Your task to perform on an android device: Empty the shopping cart on bestbuy. Search for "razer nari" on bestbuy, select the first entry, and add it to the cart. Image 0: 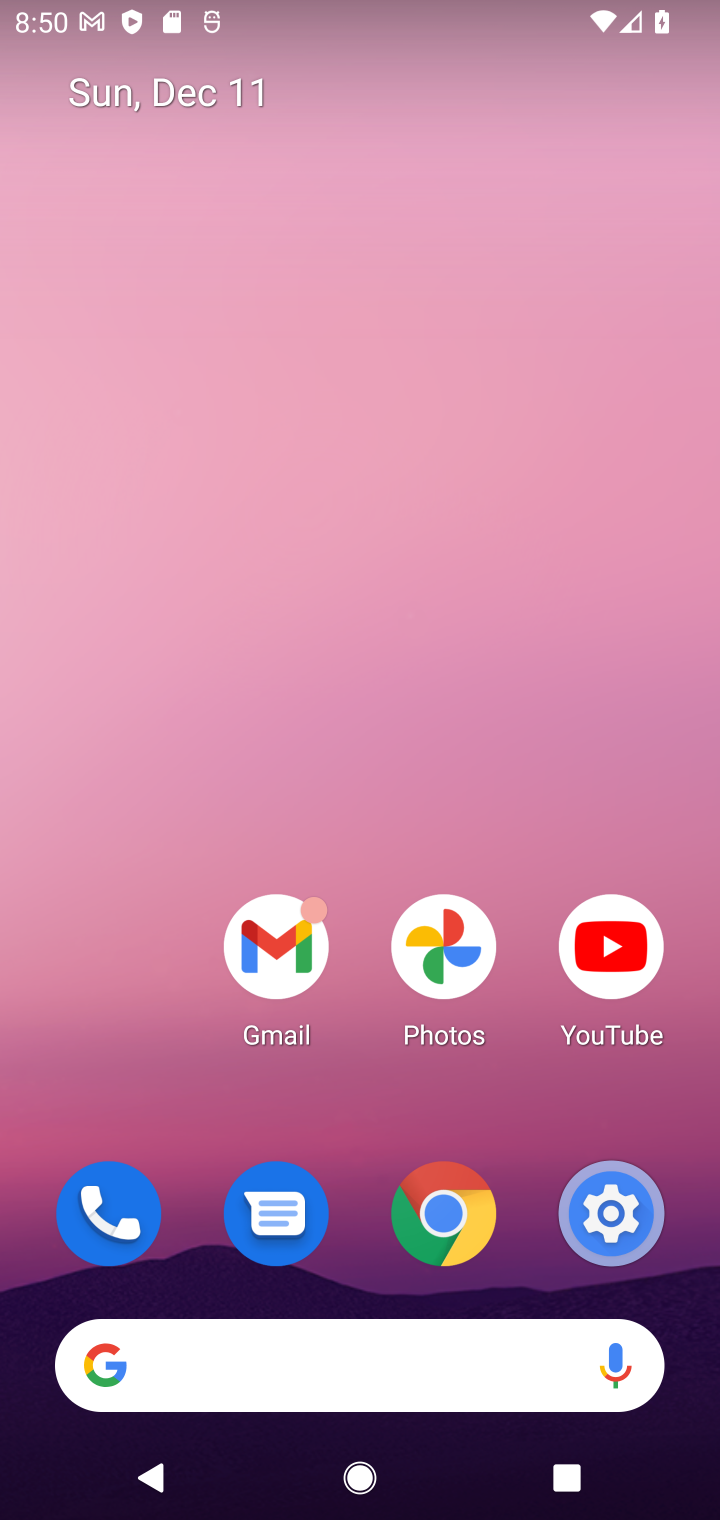
Step 0: click (355, 1404)
Your task to perform on an android device: Empty the shopping cart on bestbuy. Search for "razer nari" on bestbuy, select the first entry, and add it to the cart. Image 1: 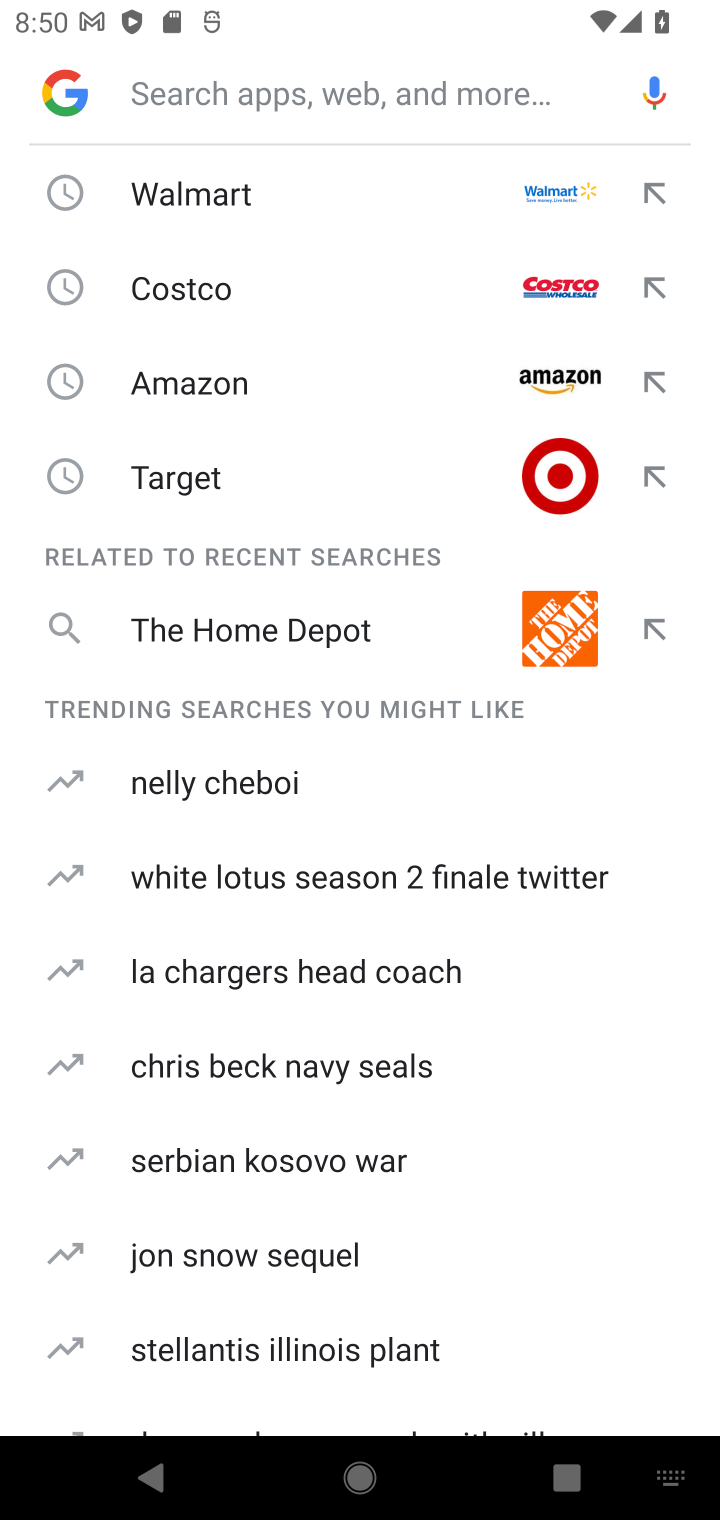
Step 1: type "bestbuy"
Your task to perform on an android device: Empty the shopping cart on bestbuy. Search for "razer nari" on bestbuy, select the first entry, and add it to the cart. Image 2: 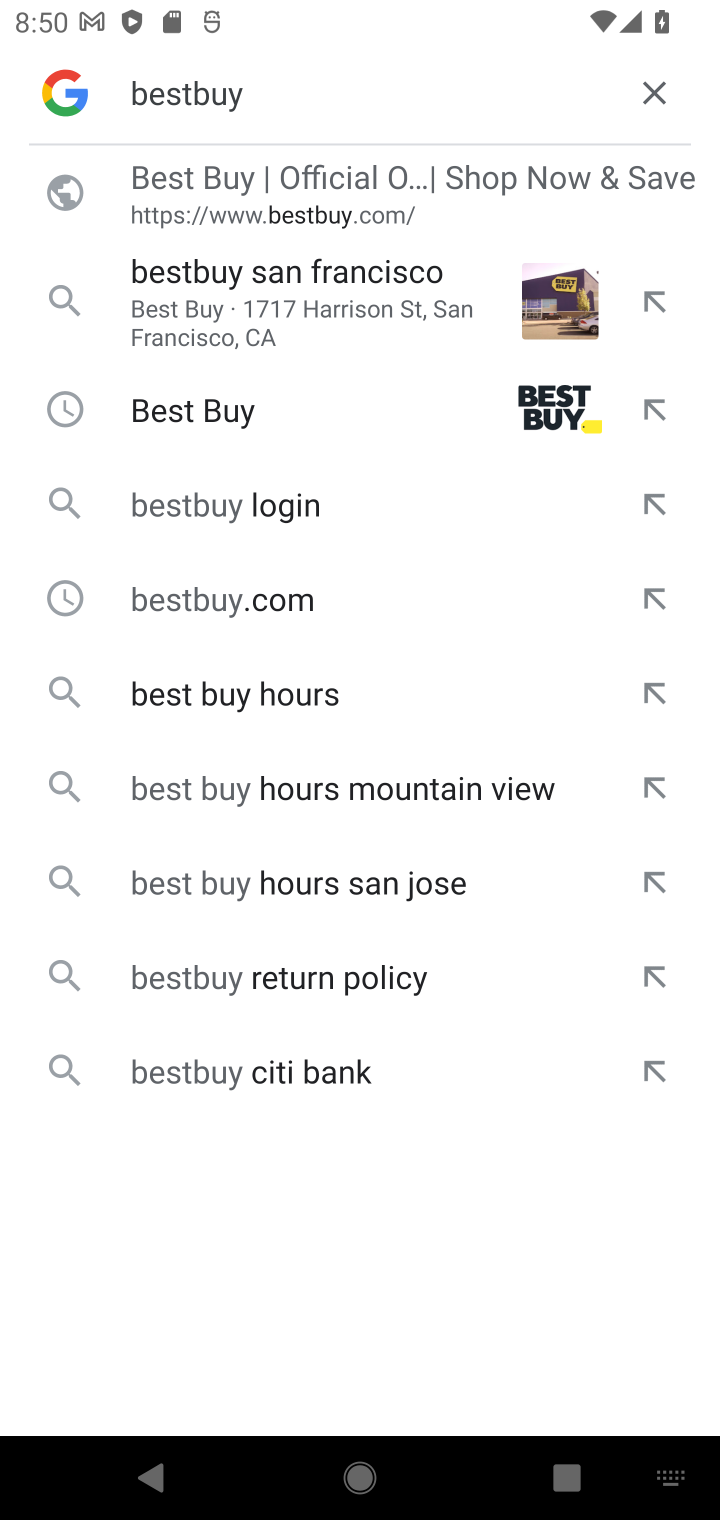
Step 2: click (352, 228)
Your task to perform on an android device: Empty the shopping cart on bestbuy. Search for "razer nari" on bestbuy, select the first entry, and add it to the cart. Image 3: 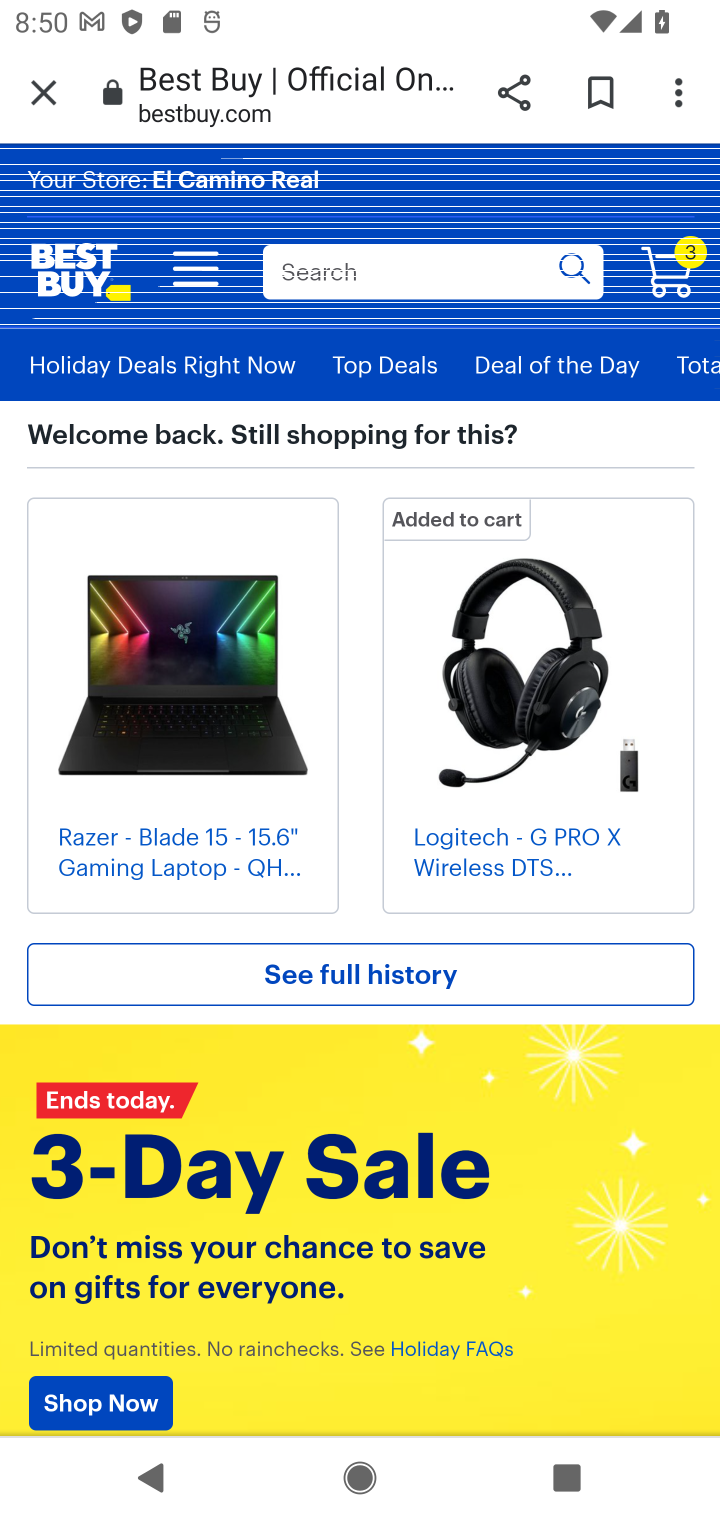
Step 3: click (338, 295)
Your task to perform on an android device: Empty the shopping cart on bestbuy. Search for "razer nari" on bestbuy, select the first entry, and add it to the cart. Image 4: 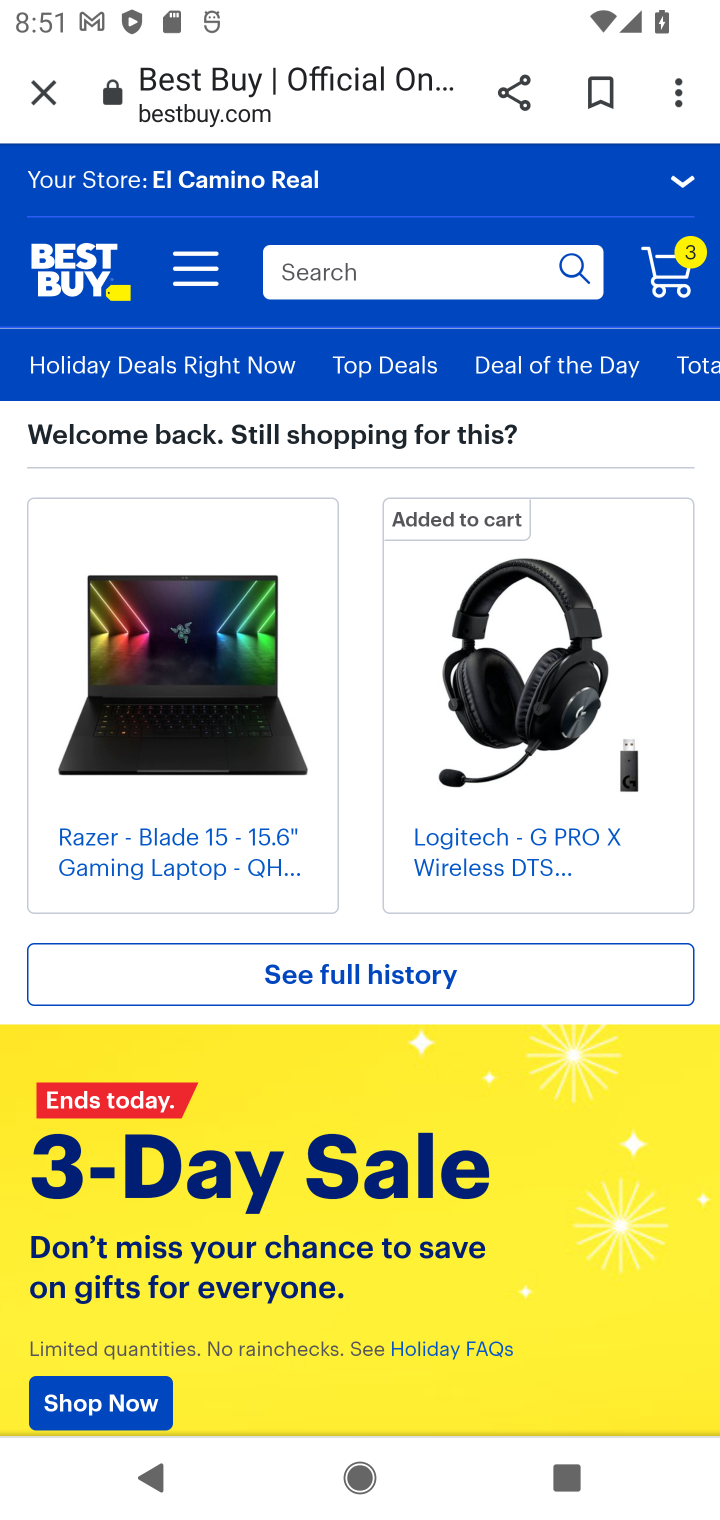
Step 4: type "razer nari"
Your task to perform on an android device: Empty the shopping cart on bestbuy. Search for "razer nari" on bestbuy, select the first entry, and add it to the cart. Image 5: 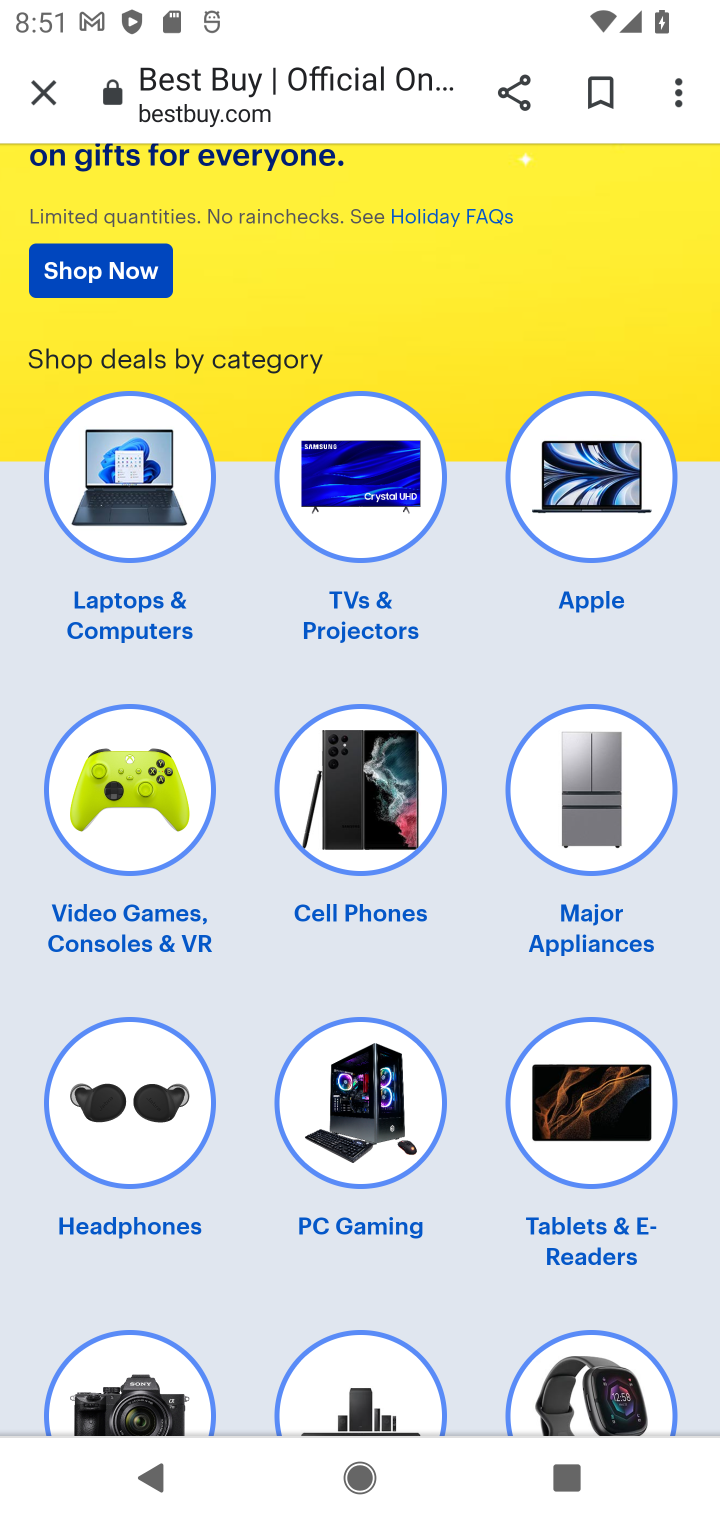
Step 5: drag from (370, 552) to (331, 1499)
Your task to perform on an android device: Empty the shopping cart on bestbuy. Search for "razer nari" on bestbuy, select the first entry, and add it to the cart. Image 6: 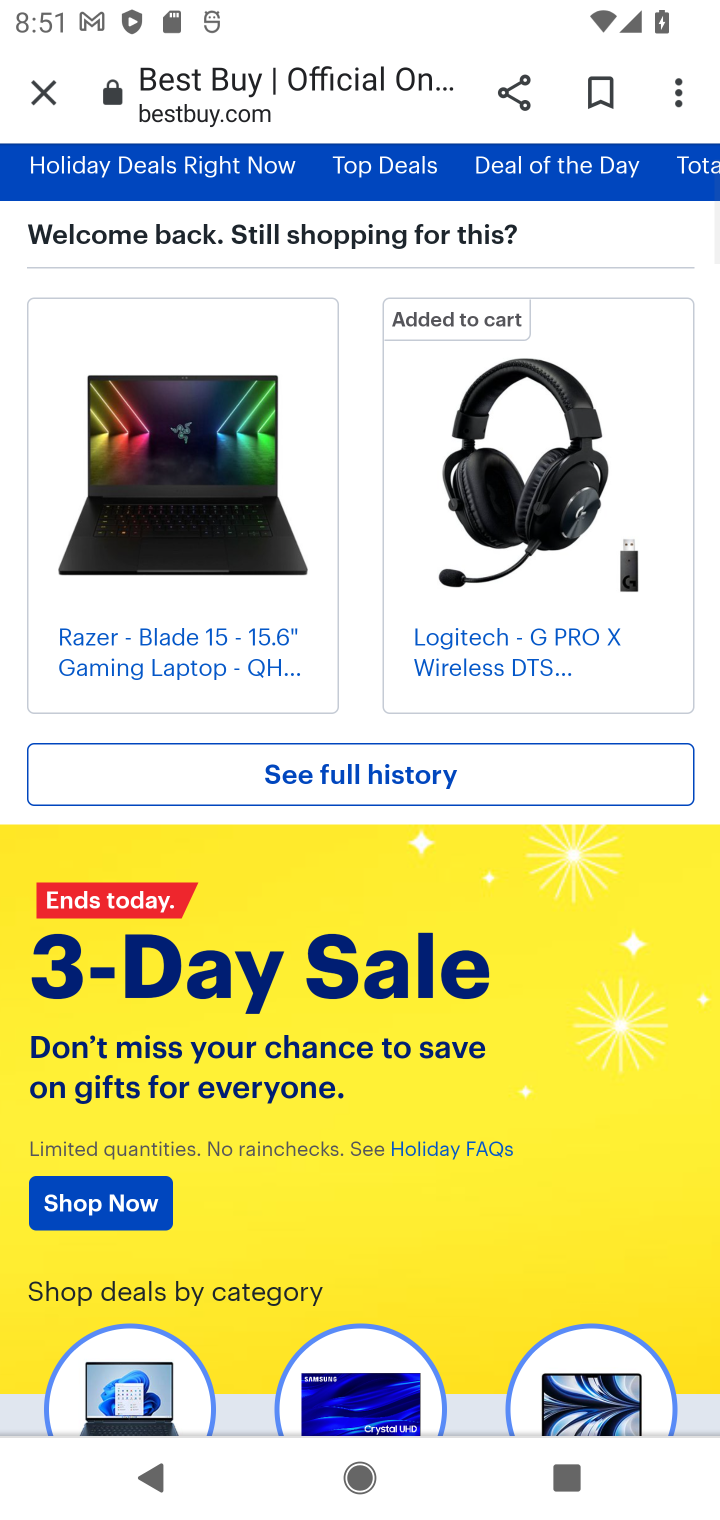
Step 6: drag from (272, 385) to (278, 986)
Your task to perform on an android device: Empty the shopping cart on bestbuy. Search for "razer nari" on bestbuy, select the first entry, and add it to the cart. Image 7: 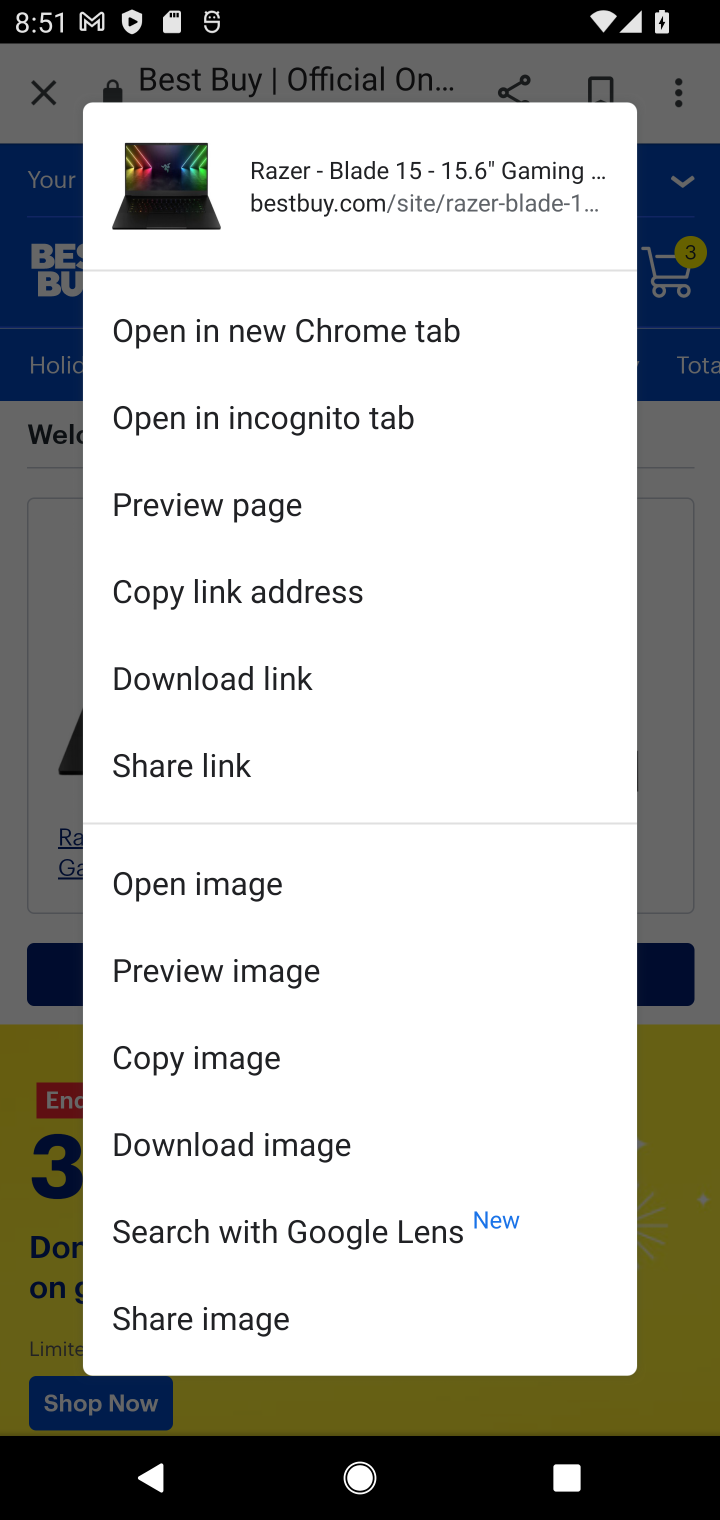
Step 7: click (682, 571)
Your task to perform on an android device: Empty the shopping cart on bestbuy. Search for "razer nari" on bestbuy, select the first entry, and add it to the cart. Image 8: 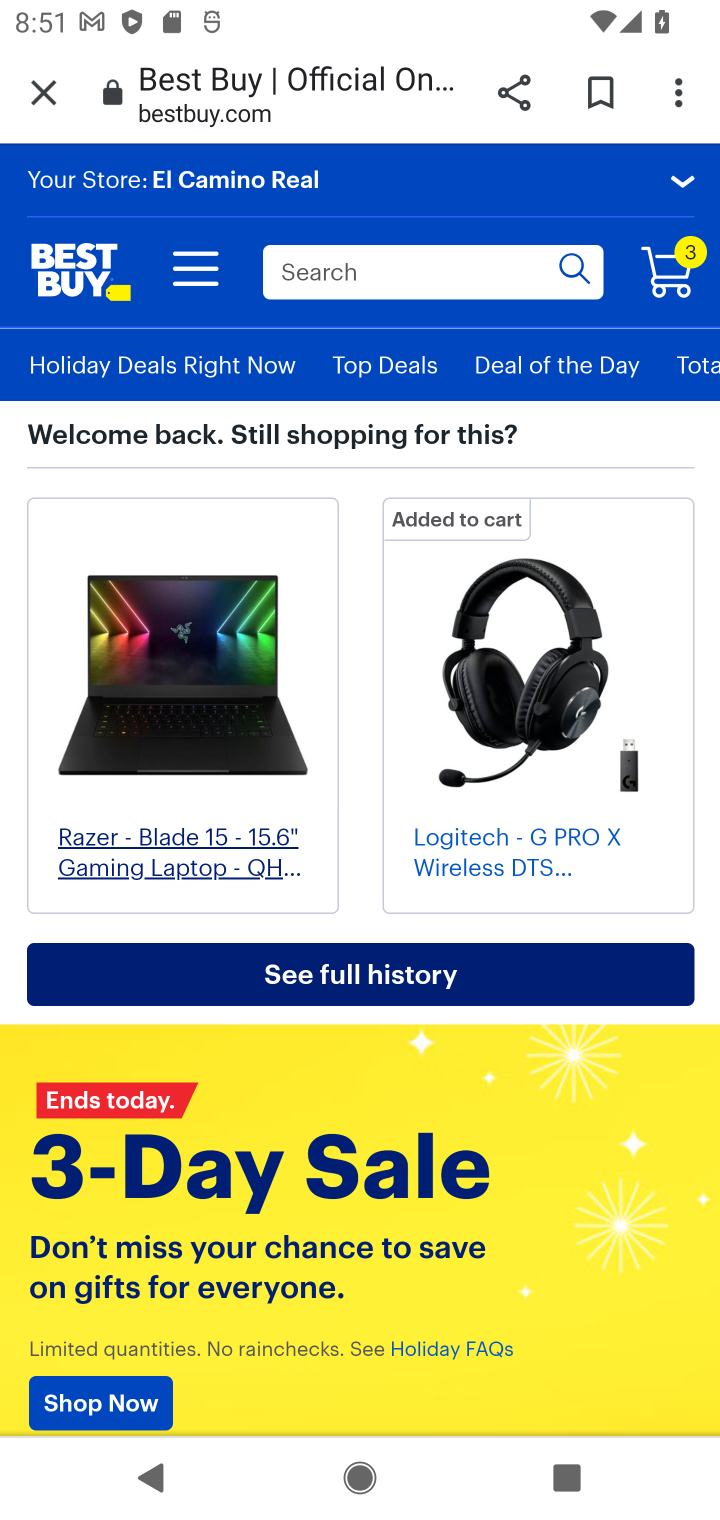
Step 8: click (409, 280)
Your task to perform on an android device: Empty the shopping cart on bestbuy. Search for "razer nari" on bestbuy, select the first entry, and add it to the cart. Image 9: 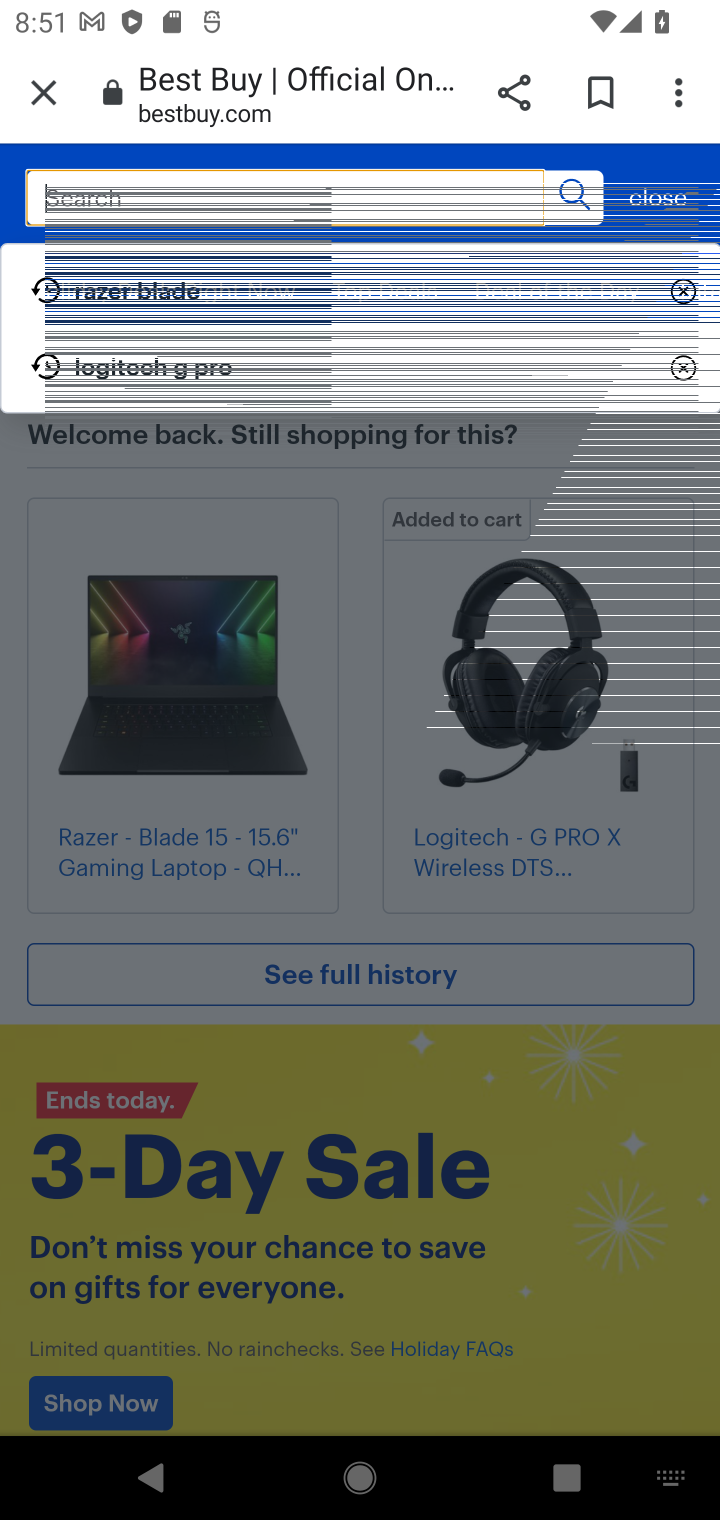
Step 9: type "razer nari"
Your task to perform on an android device: Empty the shopping cart on bestbuy. Search for "razer nari" on bestbuy, select the first entry, and add it to the cart. Image 10: 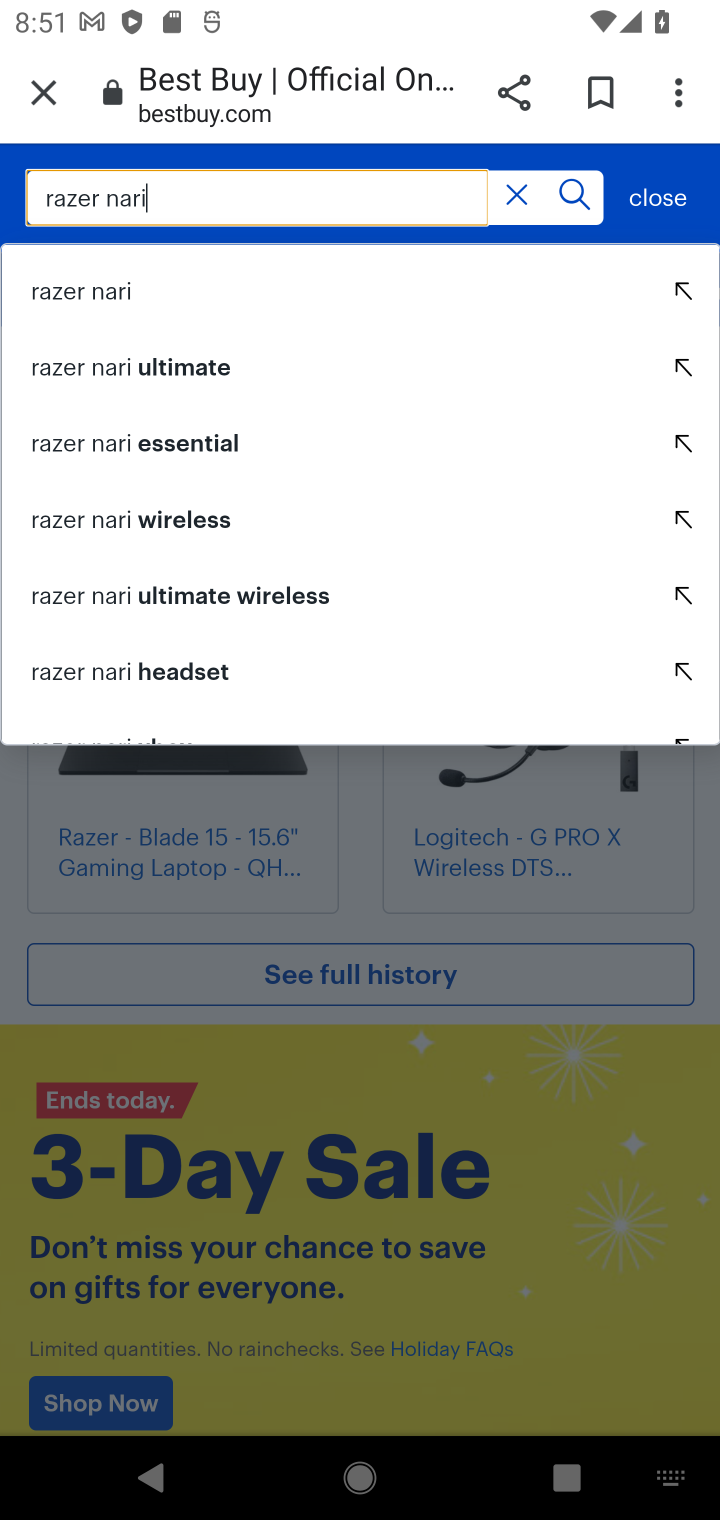
Step 10: click (171, 366)
Your task to perform on an android device: Empty the shopping cart on bestbuy. Search for "razer nari" on bestbuy, select the first entry, and add it to the cart. Image 11: 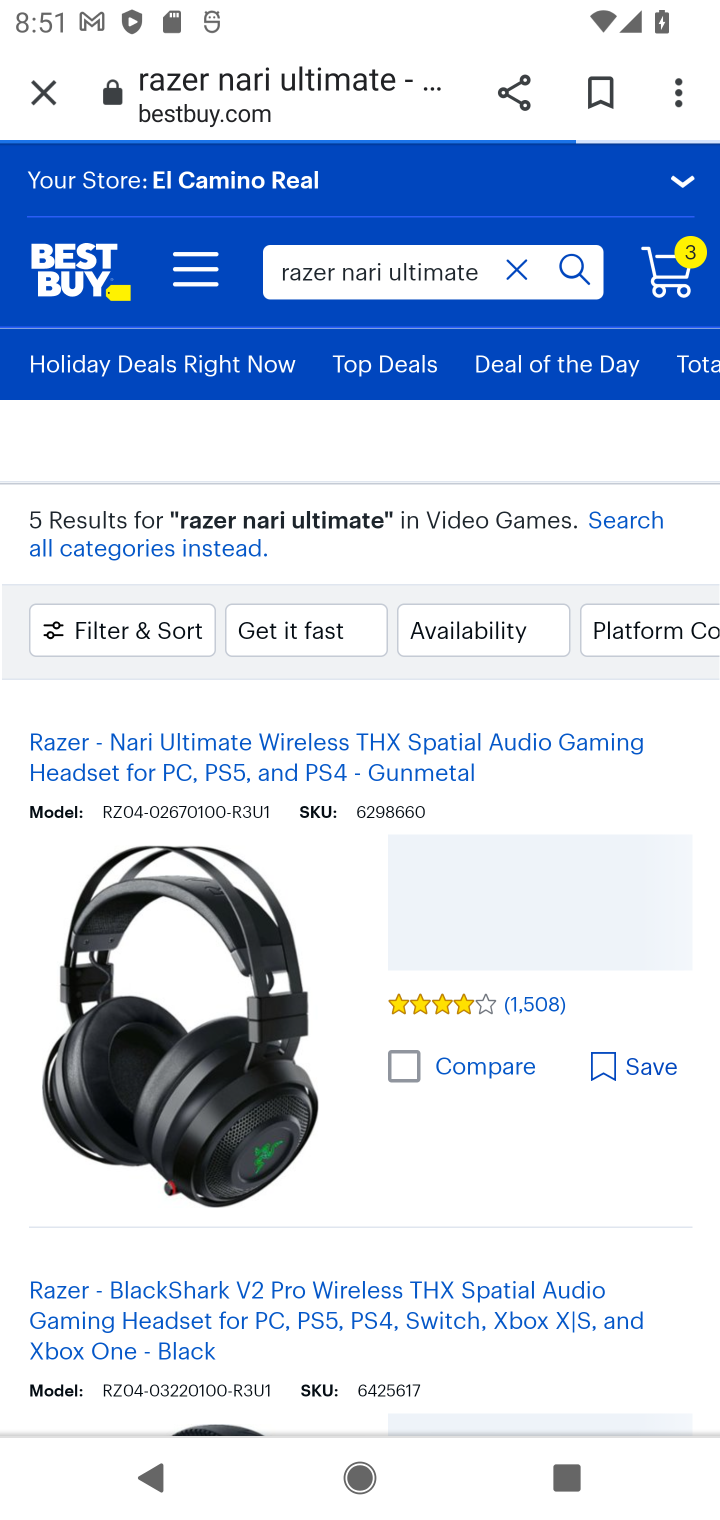
Step 11: click (251, 1058)
Your task to perform on an android device: Empty the shopping cart on bestbuy. Search for "razer nari" on bestbuy, select the first entry, and add it to the cart. Image 12: 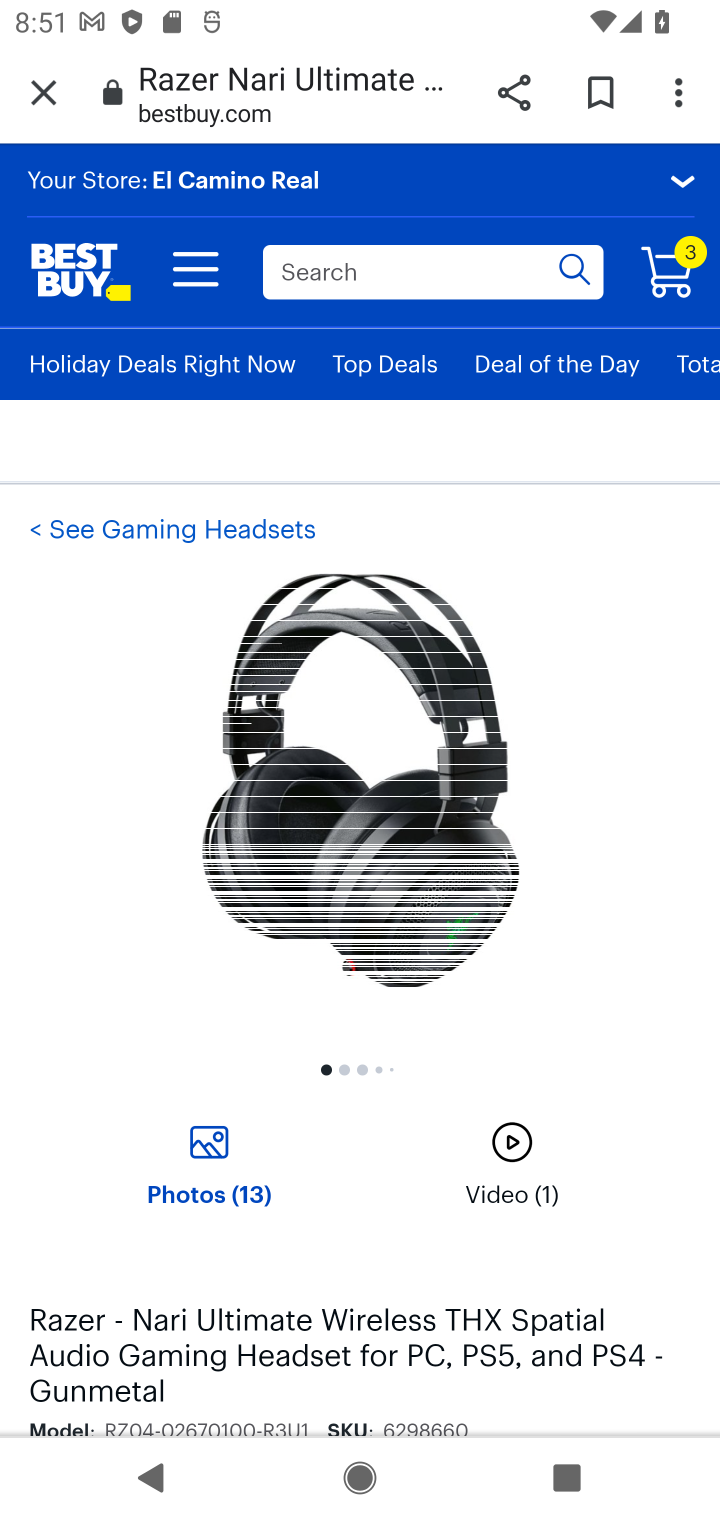
Step 12: drag from (368, 1283) to (339, 580)
Your task to perform on an android device: Empty the shopping cart on bestbuy. Search for "razer nari" on bestbuy, select the first entry, and add it to the cart. Image 13: 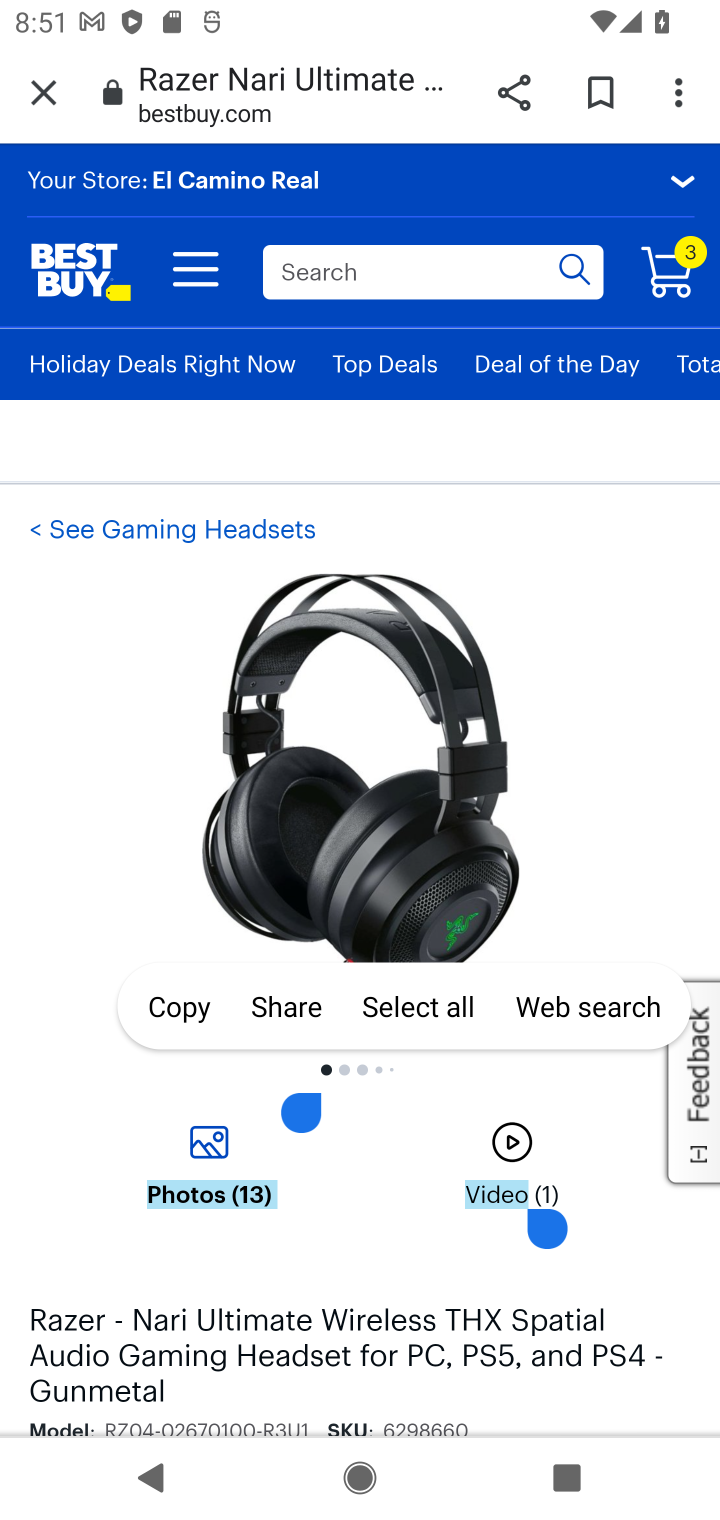
Step 13: click (389, 1249)
Your task to perform on an android device: Empty the shopping cart on bestbuy. Search for "razer nari" on bestbuy, select the first entry, and add it to the cart. Image 14: 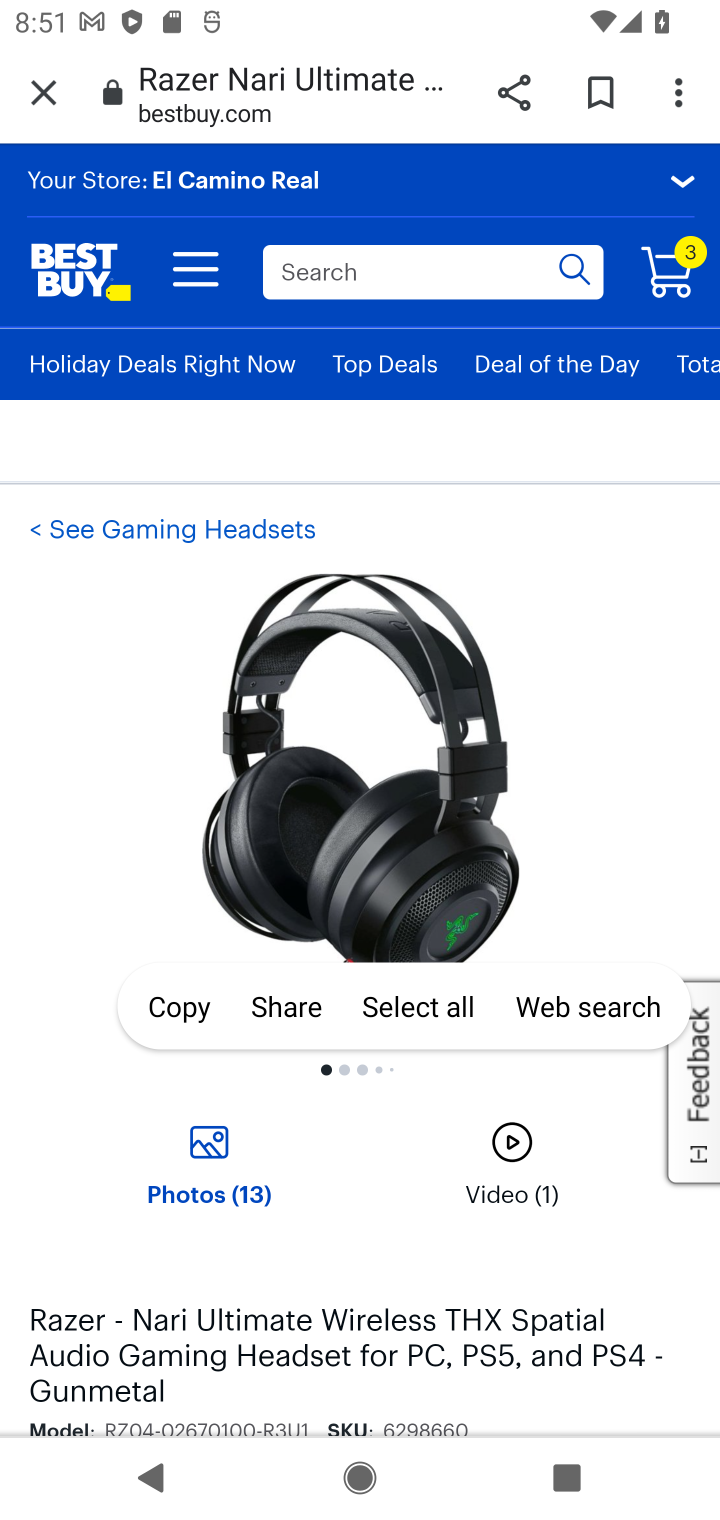
Step 14: task complete